Your task to perform on an android device: Open location settings Image 0: 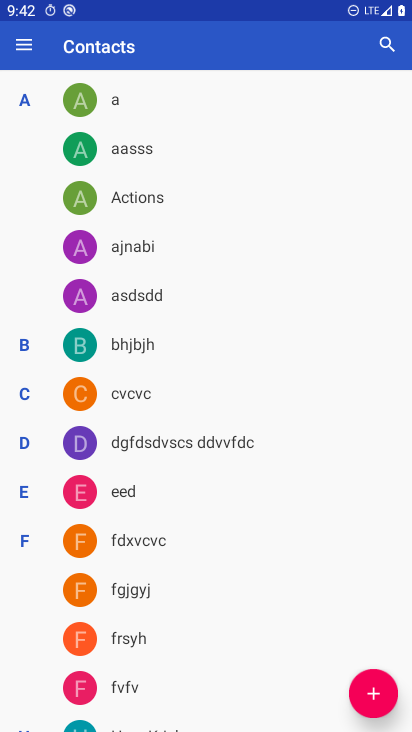
Step 0: press home button
Your task to perform on an android device: Open location settings Image 1: 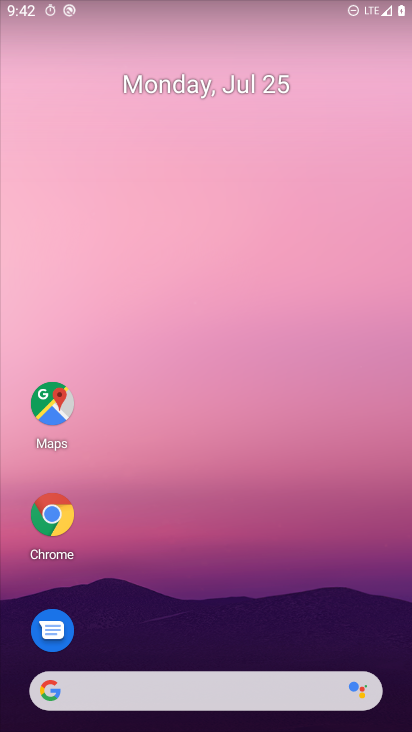
Step 1: drag from (58, 620) to (187, 279)
Your task to perform on an android device: Open location settings Image 2: 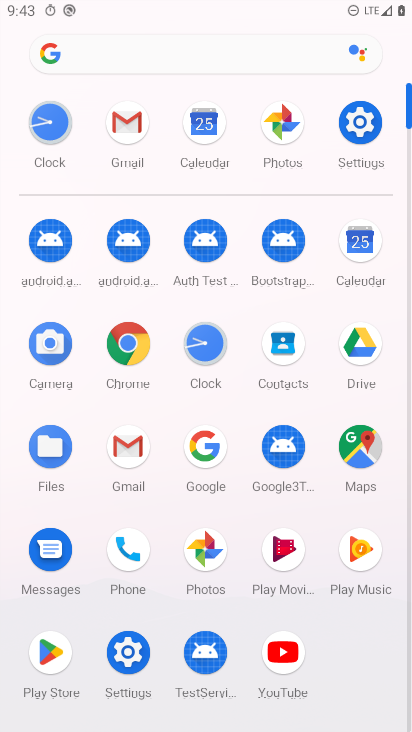
Step 2: click (144, 659)
Your task to perform on an android device: Open location settings Image 3: 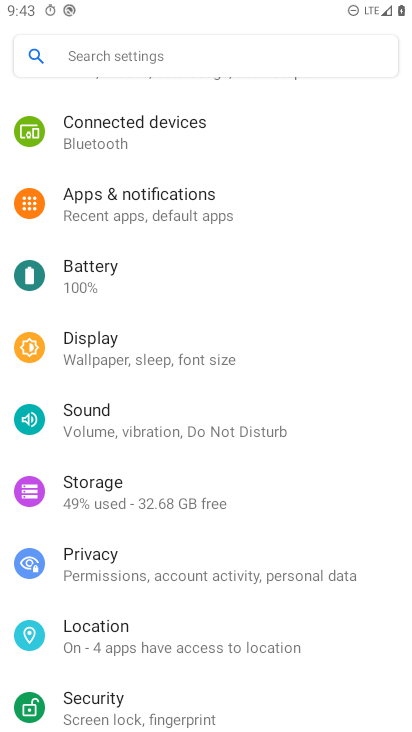
Step 3: click (160, 643)
Your task to perform on an android device: Open location settings Image 4: 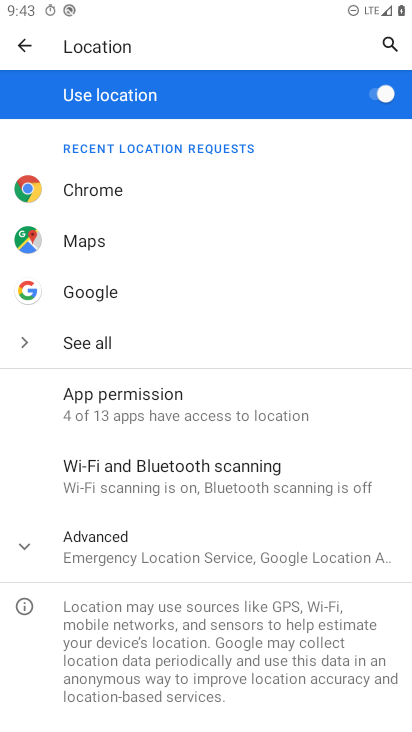
Step 4: task complete